Your task to perform on an android device: Open Google Image 0: 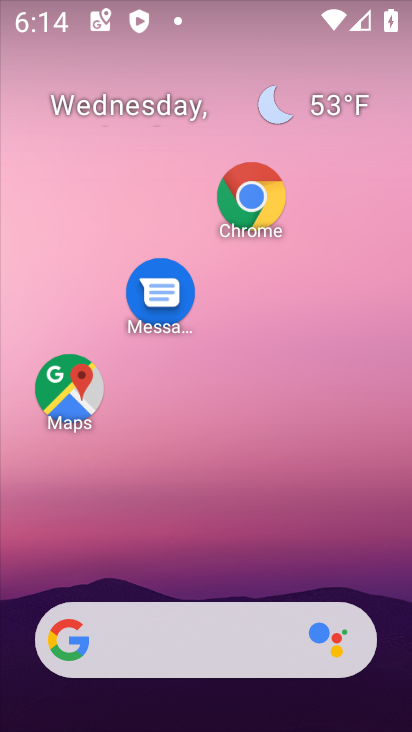
Step 0: click (171, 635)
Your task to perform on an android device: Open Google Image 1: 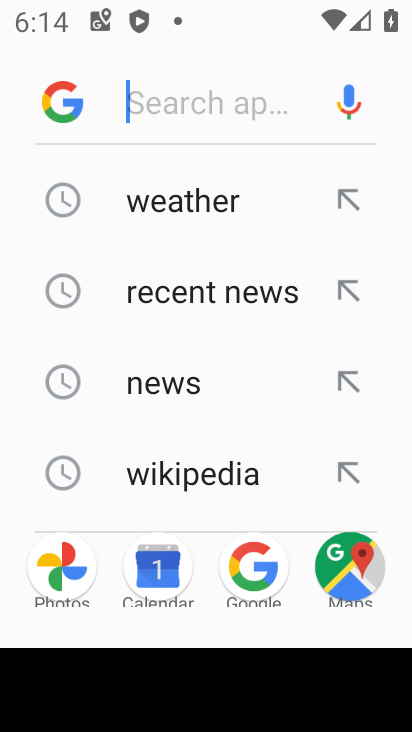
Step 1: task complete